Your task to perform on an android device: Play the last video I watched on Youtube Image 0: 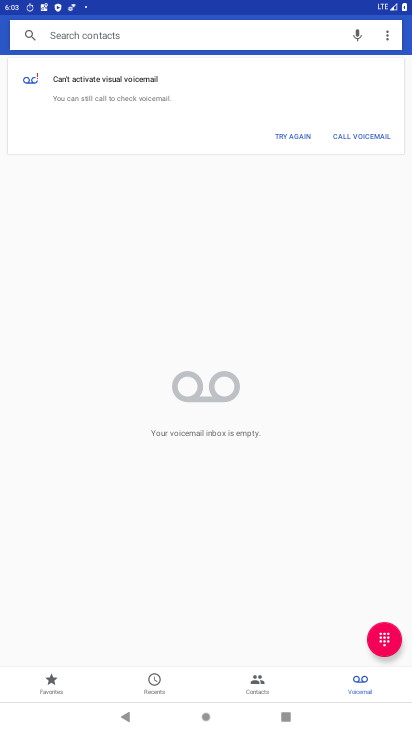
Step 0: press home button
Your task to perform on an android device: Play the last video I watched on Youtube Image 1: 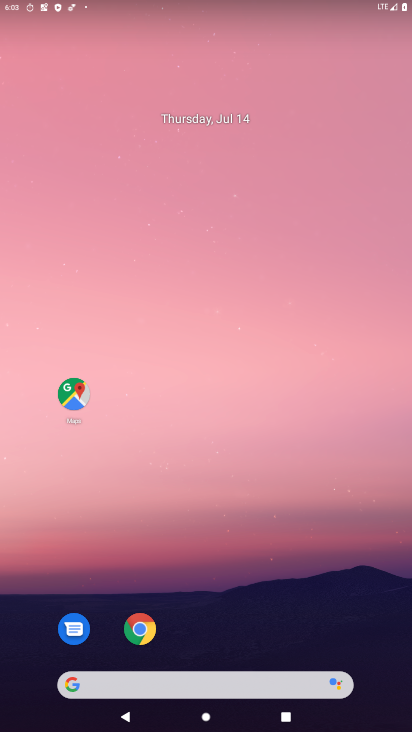
Step 1: drag from (251, 525) to (218, 59)
Your task to perform on an android device: Play the last video I watched on Youtube Image 2: 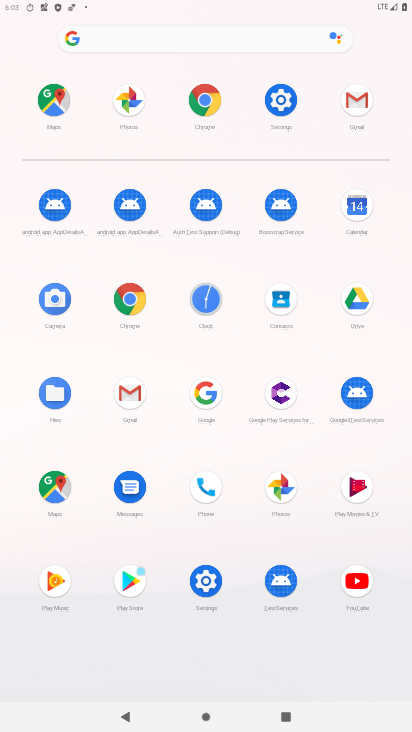
Step 2: click (357, 579)
Your task to perform on an android device: Play the last video I watched on Youtube Image 3: 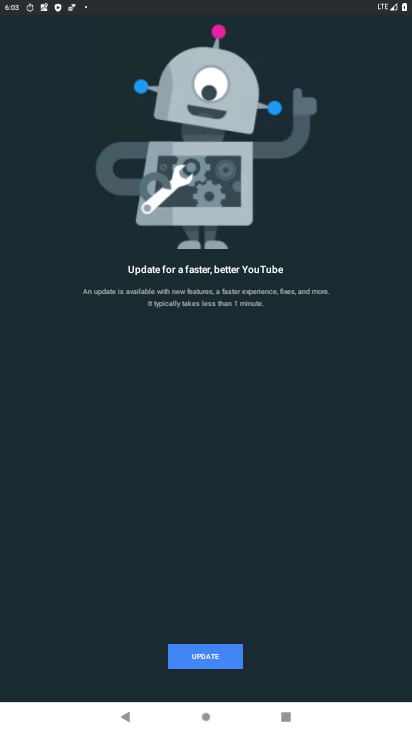
Step 3: click (225, 664)
Your task to perform on an android device: Play the last video I watched on Youtube Image 4: 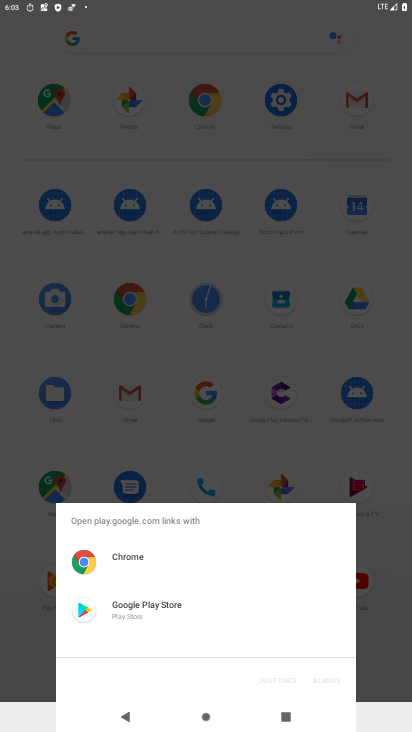
Step 4: click (152, 614)
Your task to perform on an android device: Play the last video I watched on Youtube Image 5: 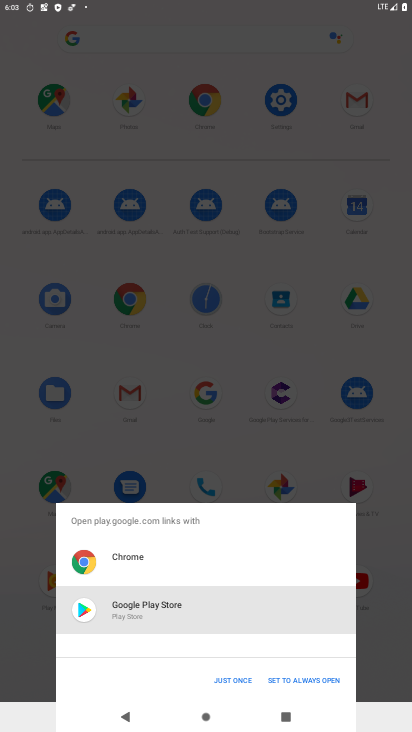
Step 5: click (233, 682)
Your task to perform on an android device: Play the last video I watched on Youtube Image 6: 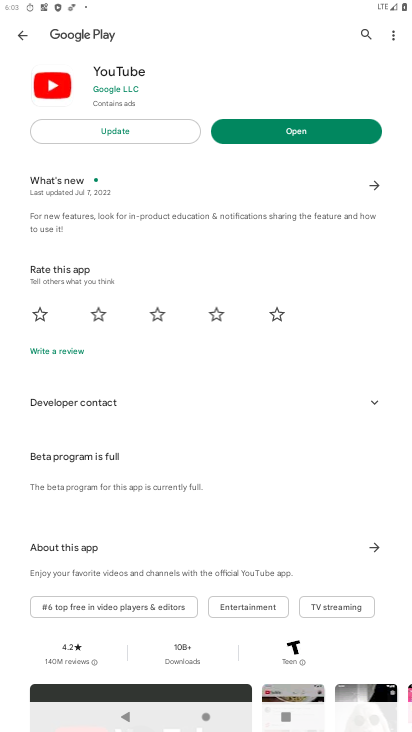
Step 6: click (142, 126)
Your task to perform on an android device: Play the last video I watched on Youtube Image 7: 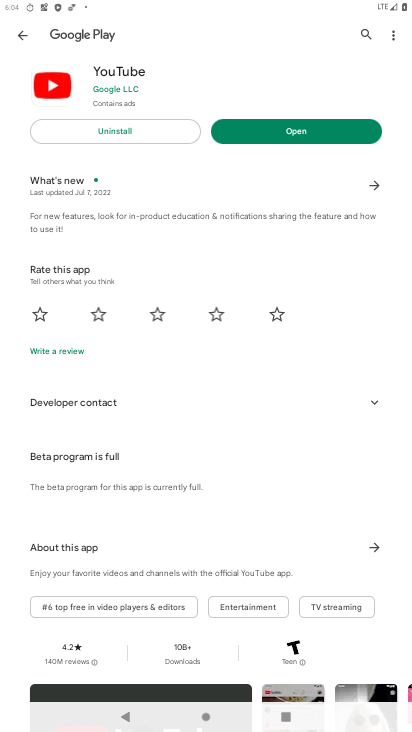
Step 7: click (338, 125)
Your task to perform on an android device: Play the last video I watched on Youtube Image 8: 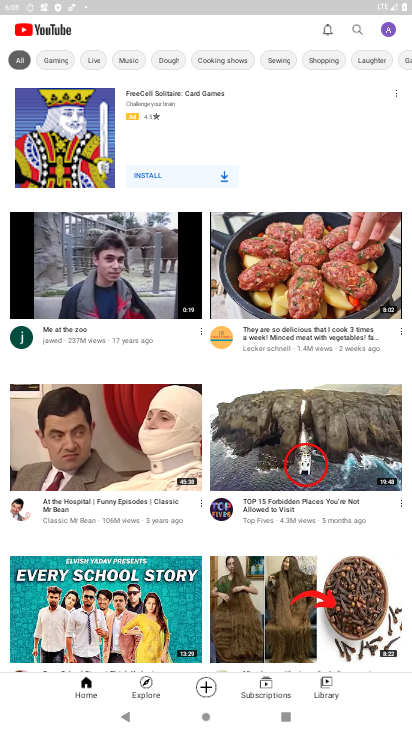
Step 8: click (328, 688)
Your task to perform on an android device: Play the last video I watched on Youtube Image 9: 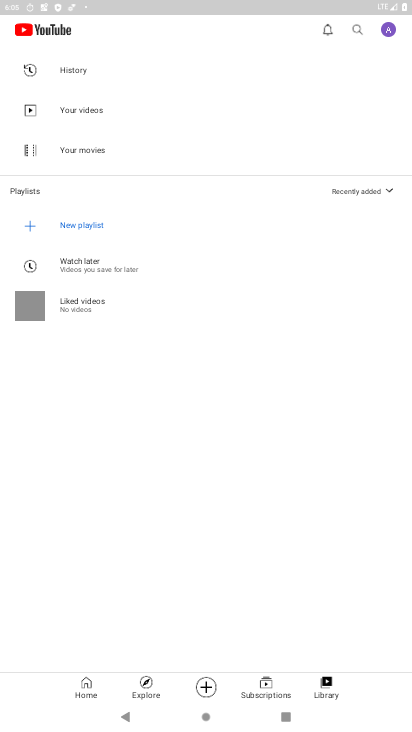
Step 9: click (76, 68)
Your task to perform on an android device: Play the last video I watched on Youtube Image 10: 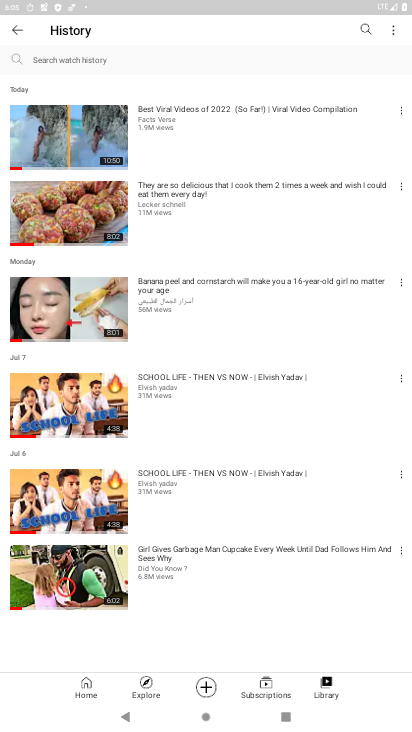
Step 10: click (113, 129)
Your task to perform on an android device: Play the last video I watched on Youtube Image 11: 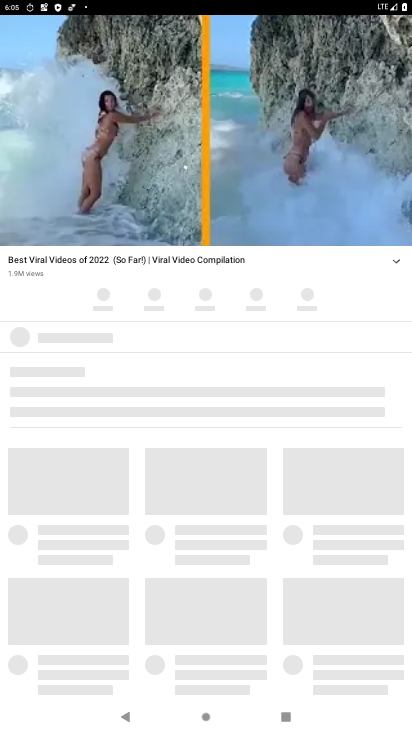
Step 11: task complete